Your task to perform on an android device: toggle data saver in the chrome app Image 0: 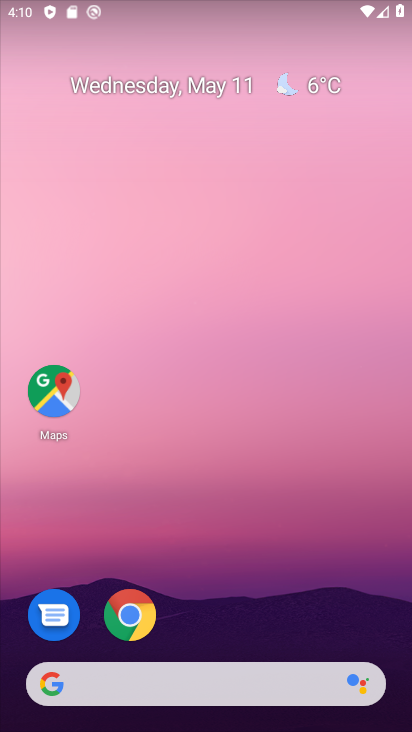
Step 0: click (126, 606)
Your task to perform on an android device: toggle data saver in the chrome app Image 1: 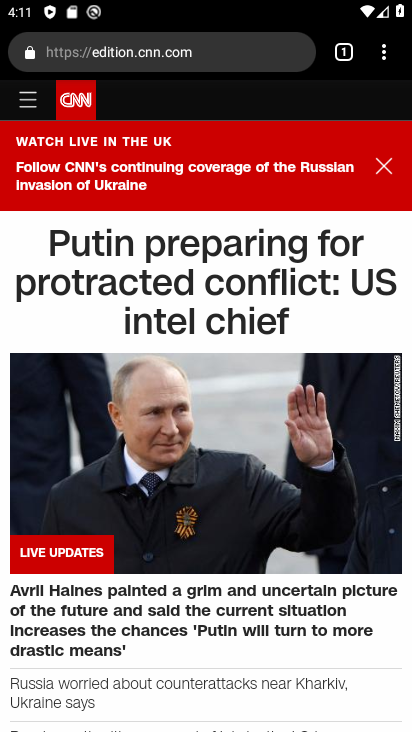
Step 1: click (389, 58)
Your task to perform on an android device: toggle data saver in the chrome app Image 2: 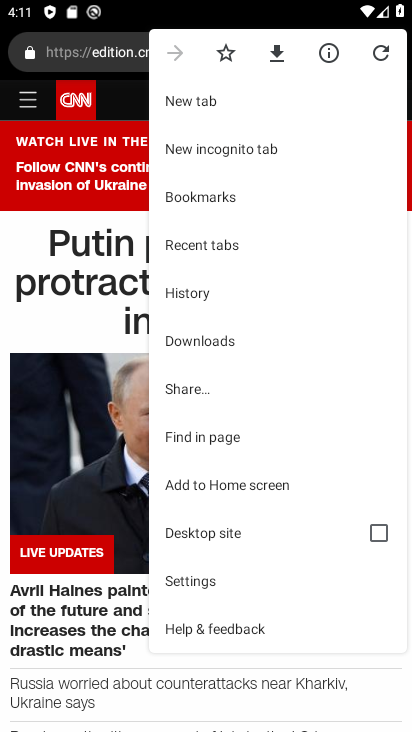
Step 2: click (223, 570)
Your task to perform on an android device: toggle data saver in the chrome app Image 3: 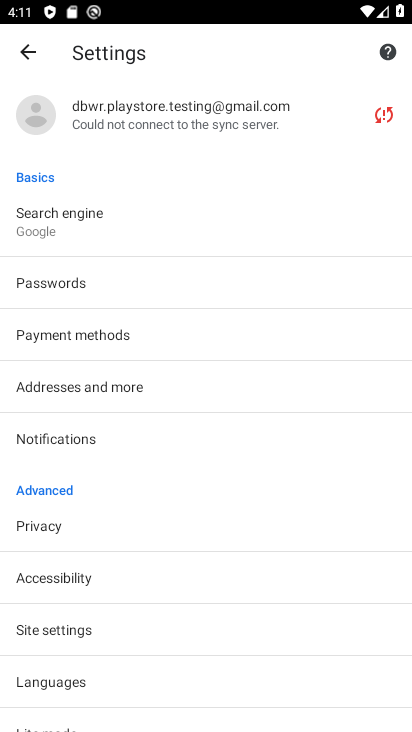
Step 3: drag from (155, 606) to (142, 436)
Your task to perform on an android device: toggle data saver in the chrome app Image 4: 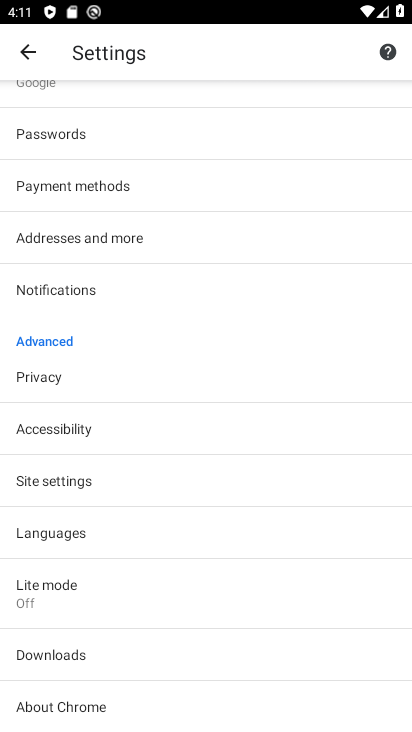
Step 4: click (65, 592)
Your task to perform on an android device: toggle data saver in the chrome app Image 5: 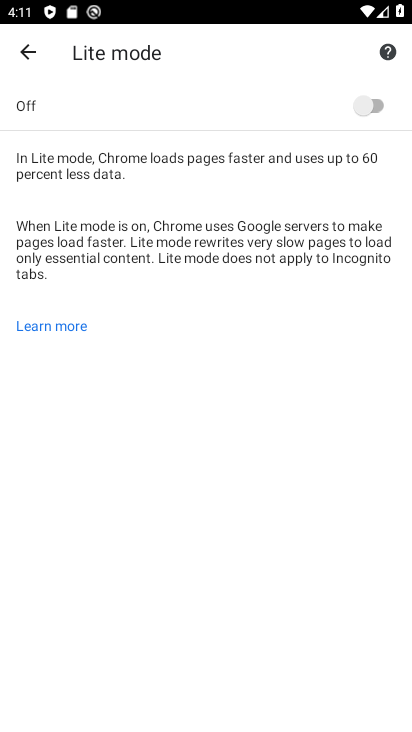
Step 5: click (376, 104)
Your task to perform on an android device: toggle data saver in the chrome app Image 6: 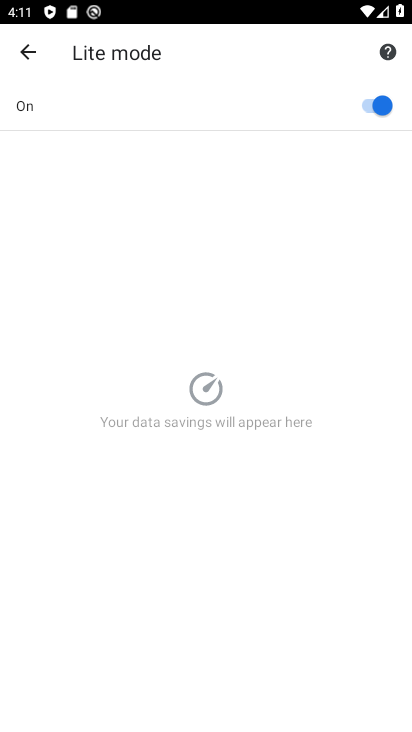
Step 6: task complete